Your task to perform on an android device: Open Maps and search for coffee Image 0: 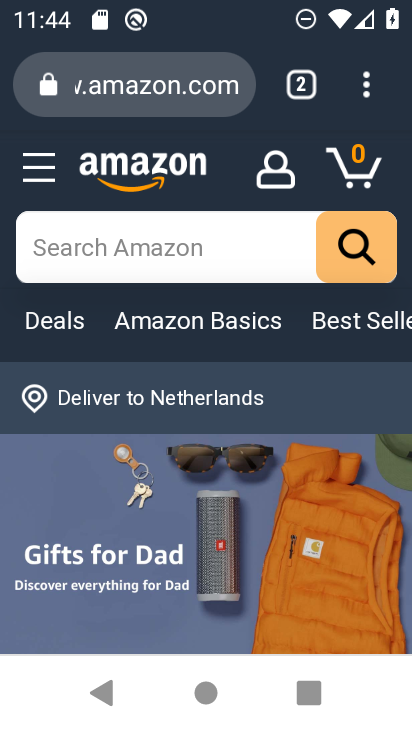
Step 0: press home button
Your task to perform on an android device: Open Maps and search for coffee Image 1: 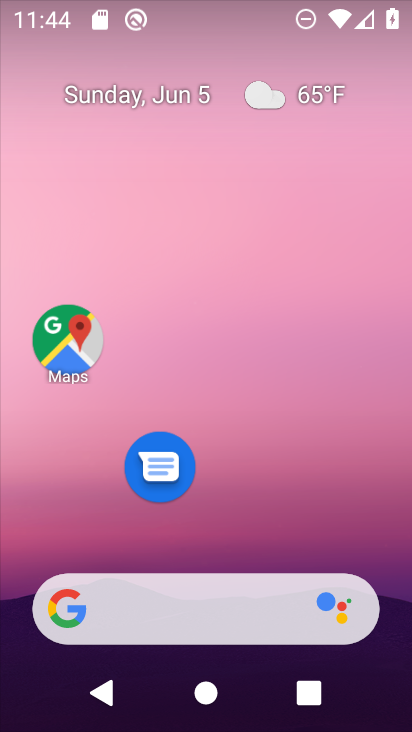
Step 1: click (100, 354)
Your task to perform on an android device: Open Maps and search for coffee Image 2: 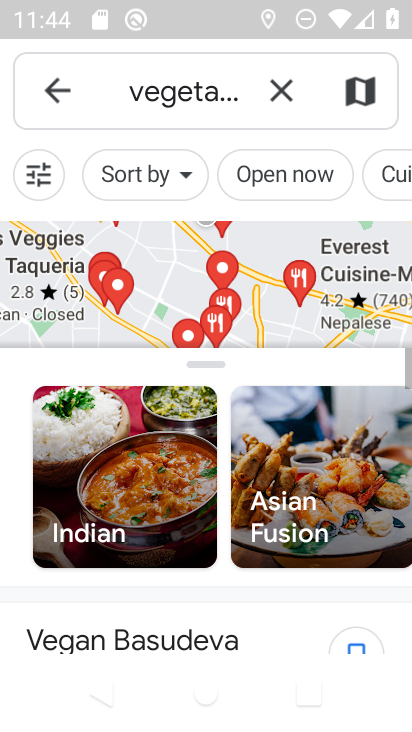
Step 2: click (288, 79)
Your task to perform on an android device: Open Maps and search for coffee Image 3: 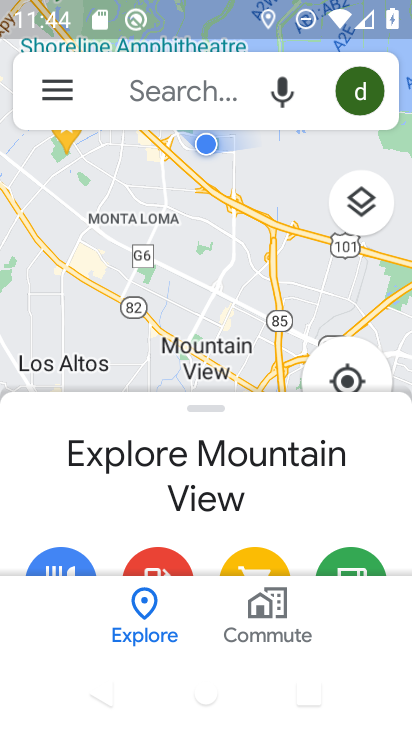
Step 3: click (179, 97)
Your task to perform on an android device: Open Maps and search for coffee Image 4: 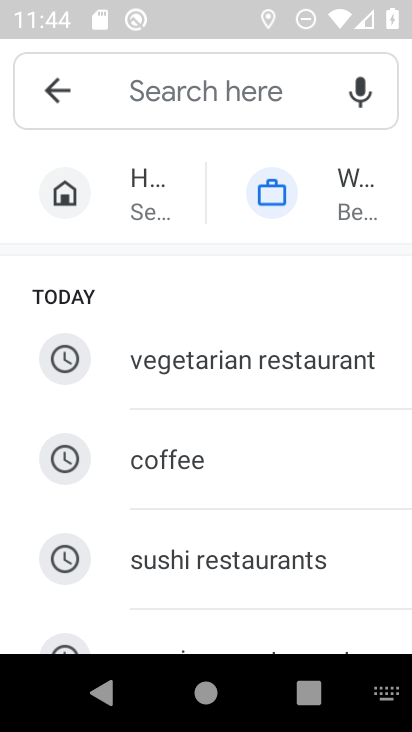
Step 4: click (230, 85)
Your task to perform on an android device: Open Maps and search for coffee Image 5: 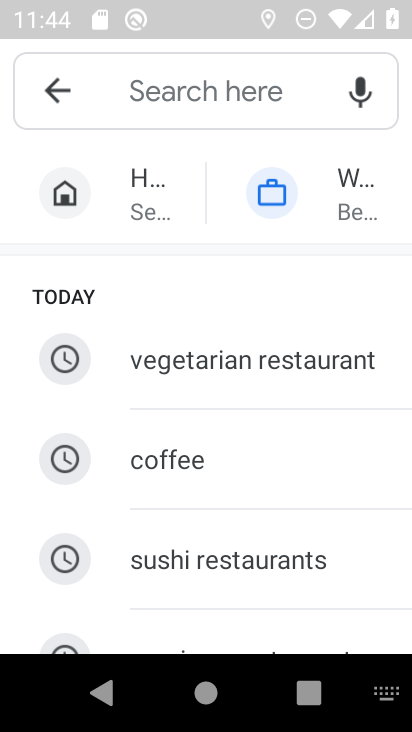
Step 5: type "coffee"
Your task to perform on an android device: Open Maps and search for coffee Image 6: 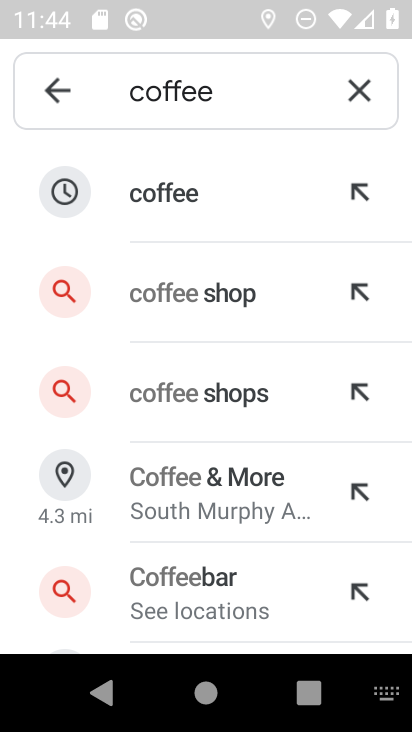
Step 6: click (240, 197)
Your task to perform on an android device: Open Maps and search for coffee Image 7: 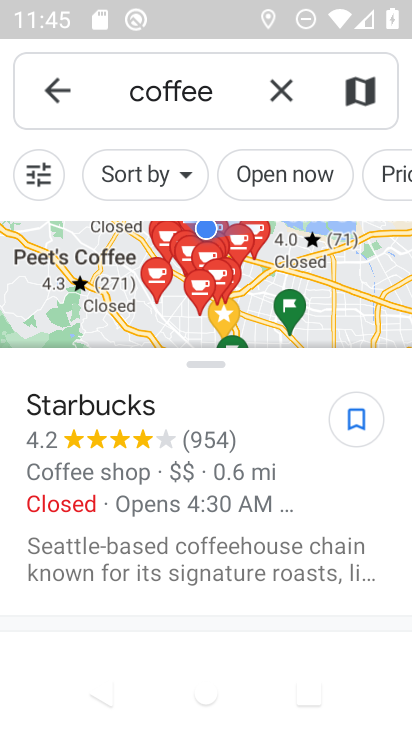
Step 7: task complete